Your task to perform on an android device: Search for "lenovo thinkpad" on walmart.com, select the first entry, add it to the cart, then select checkout. Image 0: 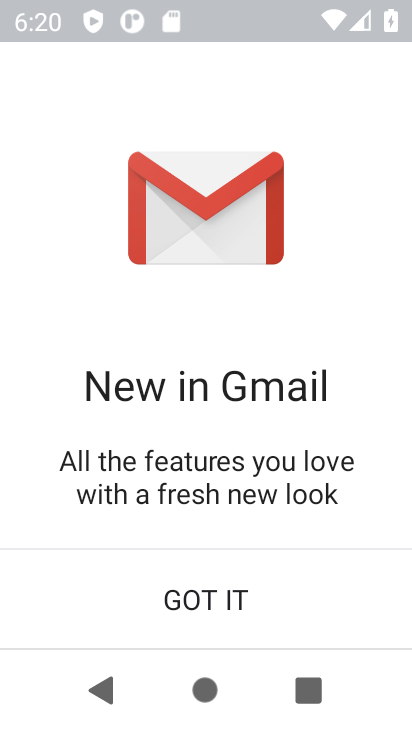
Step 0: press home button
Your task to perform on an android device: Search for "lenovo thinkpad" on walmart.com, select the first entry, add it to the cart, then select checkout. Image 1: 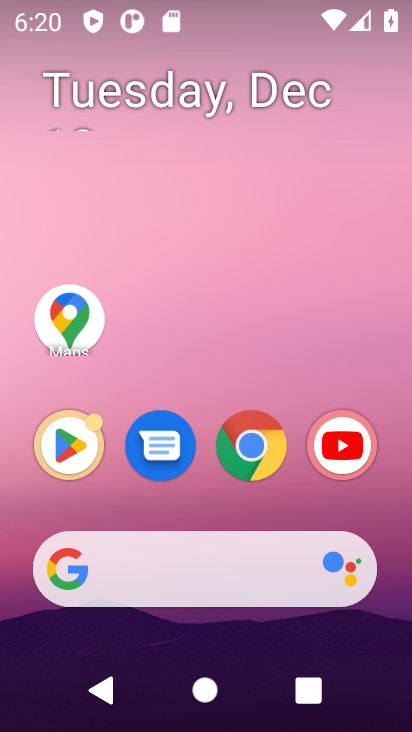
Step 1: click (188, 570)
Your task to perform on an android device: Search for "lenovo thinkpad" on walmart.com, select the first entry, add it to the cart, then select checkout. Image 2: 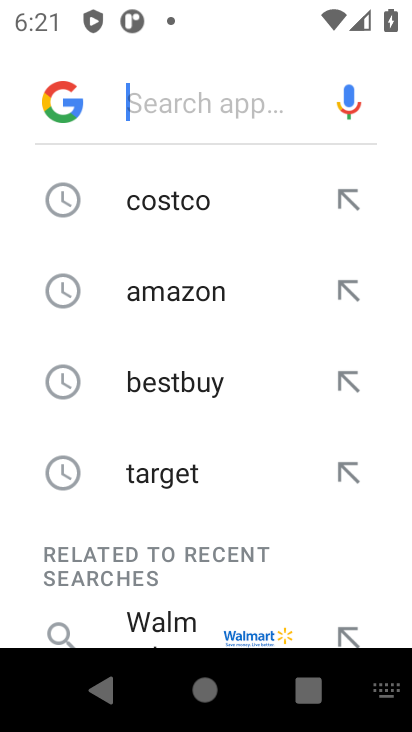
Step 2: type "walmart.com,"
Your task to perform on an android device: Search for "lenovo thinkpad" on walmart.com, select the first entry, add it to the cart, then select checkout. Image 3: 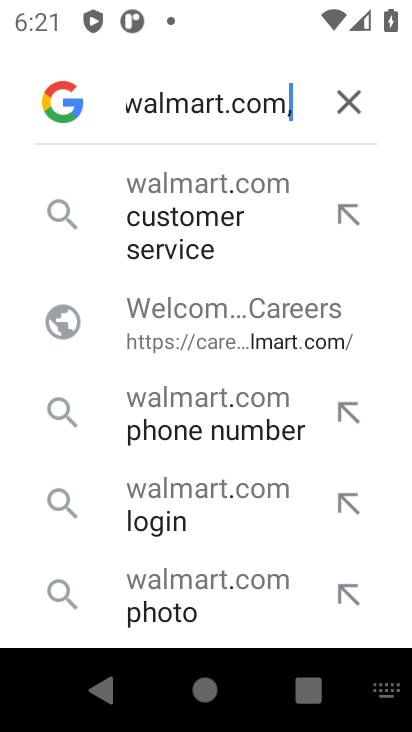
Step 3: click (190, 180)
Your task to perform on an android device: Search for "lenovo thinkpad" on walmart.com, select the first entry, add it to the cart, then select checkout. Image 4: 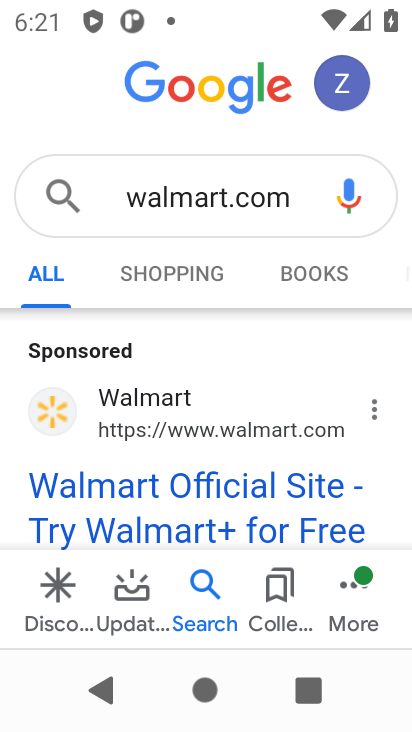
Step 4: click (162, 421)
Your task to perform on an android device: Search for "lenovo thinkpad" on walmart.com, select the first entry, add it to the cart, then select checkout. Image 5: 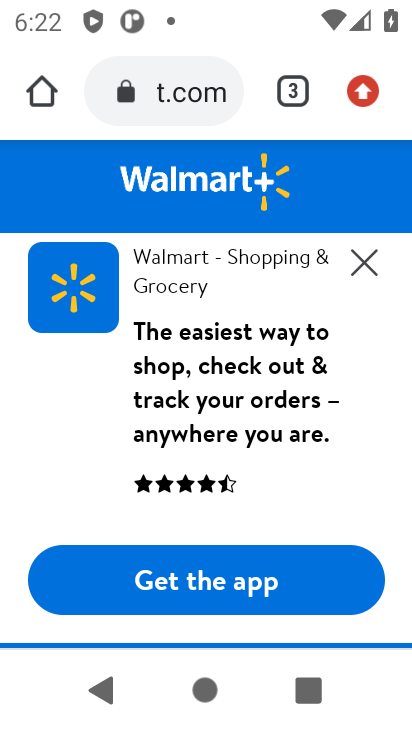
Step 5: click (368, 262)
Your task to perform on an android device: Search for "lenovo thinkpad" on walmart.com, select the first entry, add it to the cart, then select checkout. Image 6: 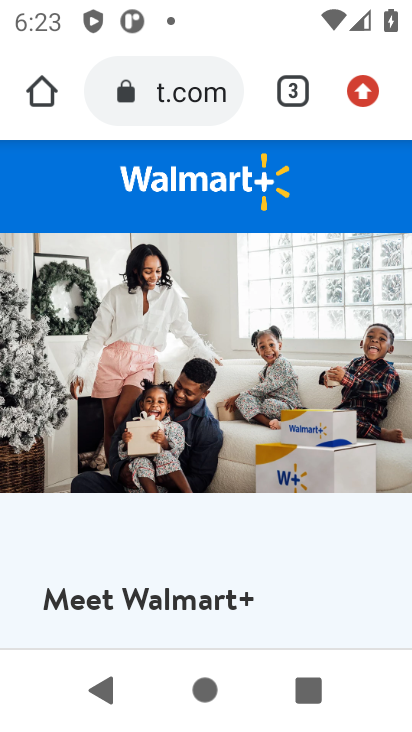
Step 6: drag from (194, 488) to (216, 172)
Your task to perform on an android device: Search for "lenovo thinkpad" on walmart.com, select the first entry, add it to the cart, then select checkout. Image 7: 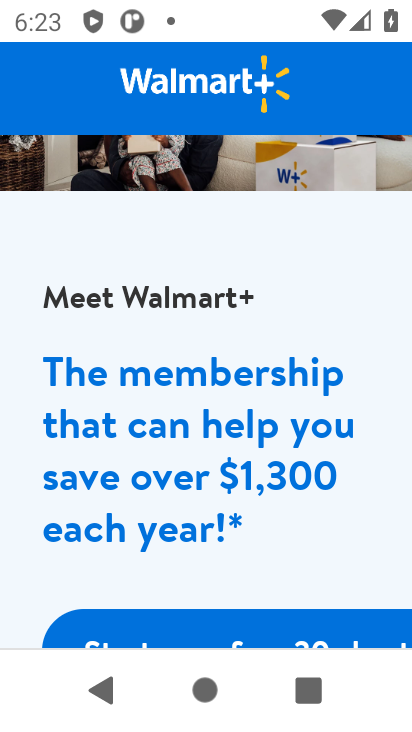
Step 7: drag from (222, 461) to (222, 209)
Your task to perform on an android device: Search for "lenovo thinkpad" on walmart.com, select the first entry, add it to the cart, then select checkout. Image 8: 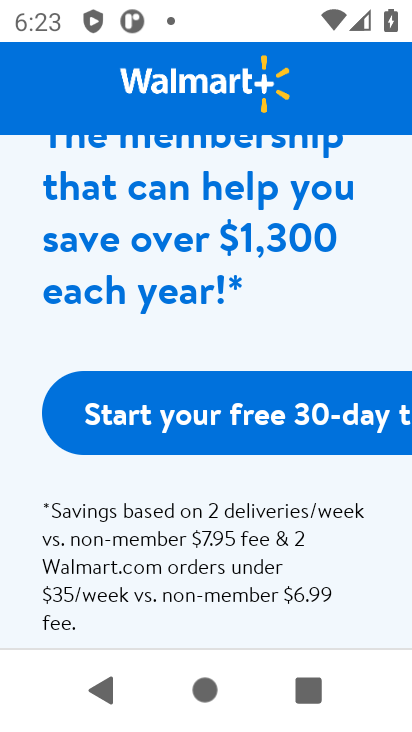
Step 8: drag from (198, 507) to (194, 355)
Your task to perform on an android device: Search for "lenovo thinkpad" on walmart.com, select the first entry, add it to the cart, then select checkout. Image 9: 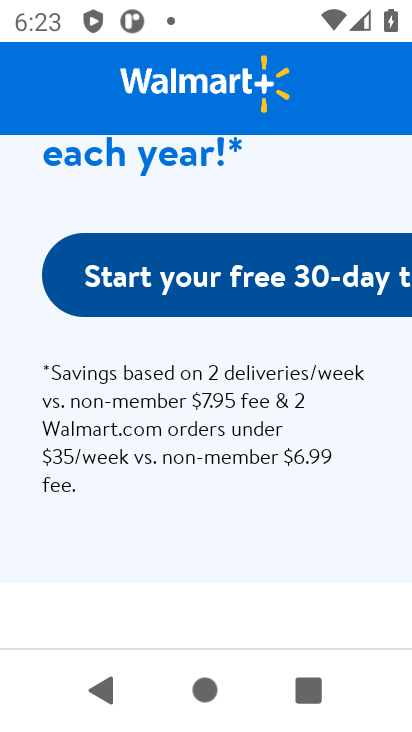
Step 9: drag from (239, 212) to (247, 576)
Your task to perform on an android device: Search for "lenovo thinkpad" on walmart.com, select the first entry, add it to the cart, then select checkout. Image 10: 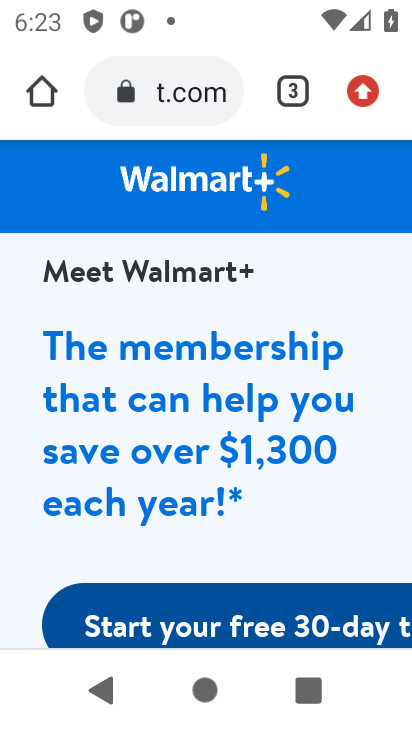
Step 10: drag from (274, 372) to (268, 509)
Your task to perform on an android device: Search for "lenovo thinkpad" on walmart.com, select the first entry, add it to the cart, then select checkout. Image 11: 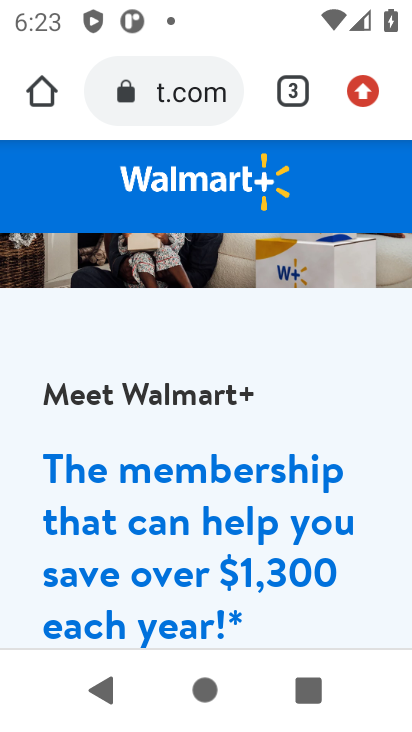
Step 11: drag from (301, 270) to (297, 489)
Your task to perform on an android device: Search for "lenovo thinkpad" on walmart.com, select the first entry, add it to the cart, then select checkout. Image 12: 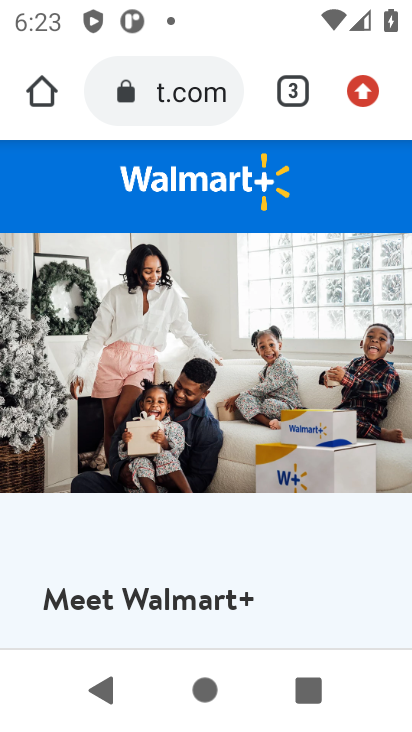
Step 12: drag from (251, 440) to (245, 546)
Your task to perform on an android device: Search for "lenovo thinkpad" on walmart.com, select the first entry, add it to the cart, then select checkout. Image 13: 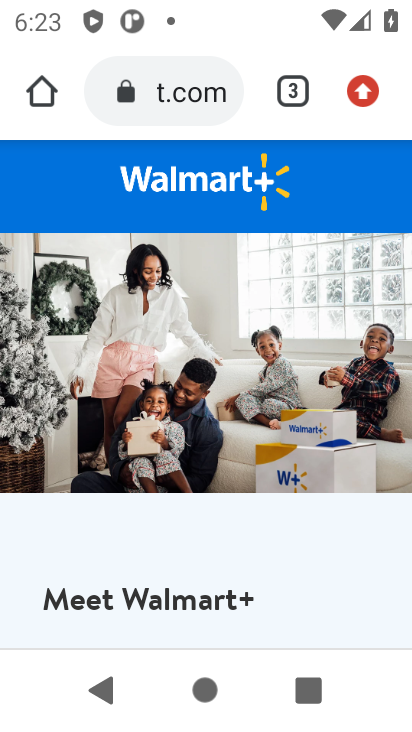
Step 13: click (268, 174)
Your task to perform on an android device: Search for "lenovo thinkpad" on walmart.com, select the first entry, add it to the cart, then select checkout. Image 14: 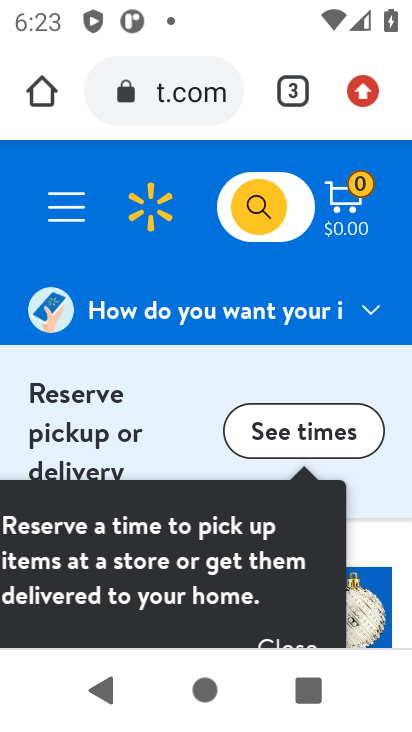
Step 14: click (357, 511)
Your task to perform on an android device: Search for "lenovo thinkpad" on walmart.com, select the first entry, add it to the cart, then select checkout. Image 15: 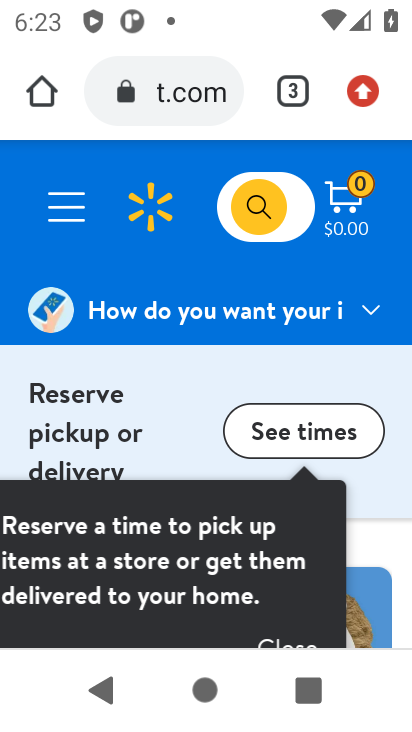
Step 15: click (248, 206)
Your task to perform on an android device: Search for "lenovo thinkpad" on walmart.com, select the first entry, add it to the cart, then select checkout. Image 16: 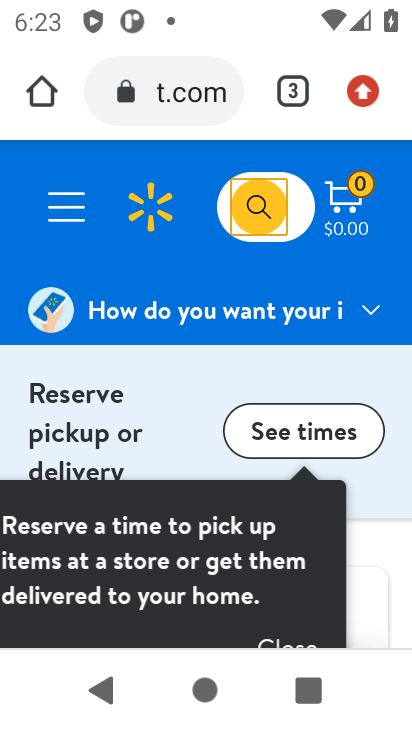
Step 16: click (256, 206)
Your task to perform on an android device: Search for "lenovo thinkpad" on walmart.com, select the first entry, add it to the cart, then select checkout. Image 17: 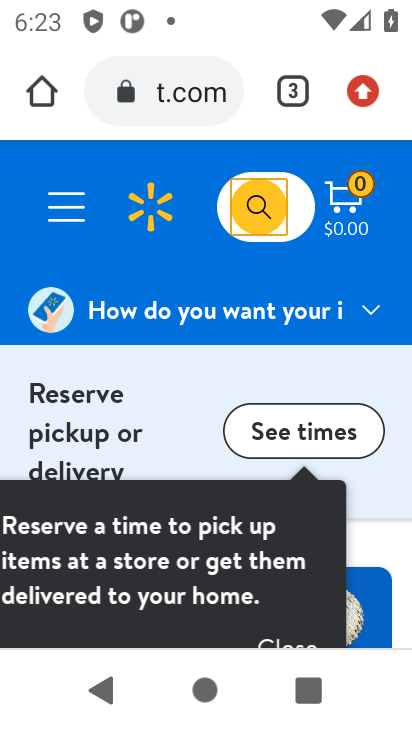
Step 17: click (253, 202)
Your task to perform on an android device: Search for "lenovo thinkpad" on walmart.com, select the first entry, add it to the cart, then select checkout. Image 18: 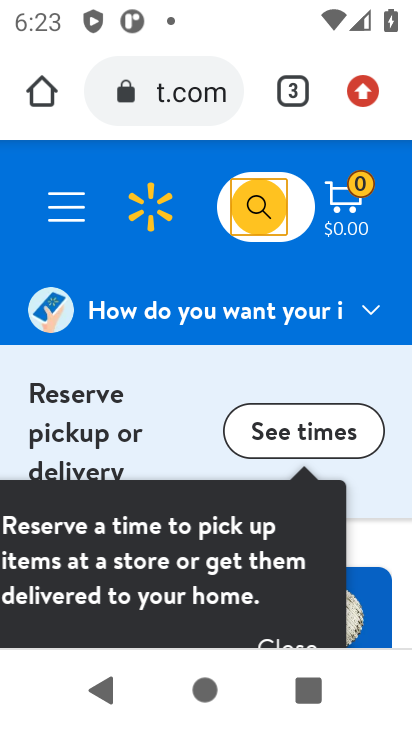
Step 18: click (255, 210)
Your task to perform on an android device: Search for "lenovo thinkpad" on walmart.com, select the first entry, add it to the cart, then select checkout. Image 19: 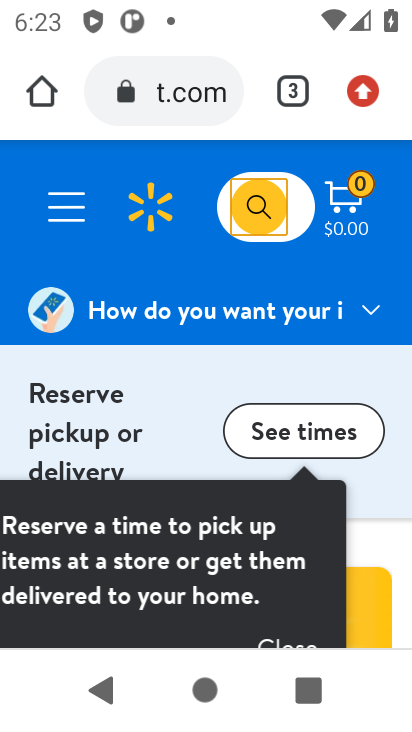
Step 19: click (271, 207)
Your task to perform on an android device: Search for "lenovo thinkpad" on walmart.com, select the first entry, add it to the cart, then select checkout. Image 20: 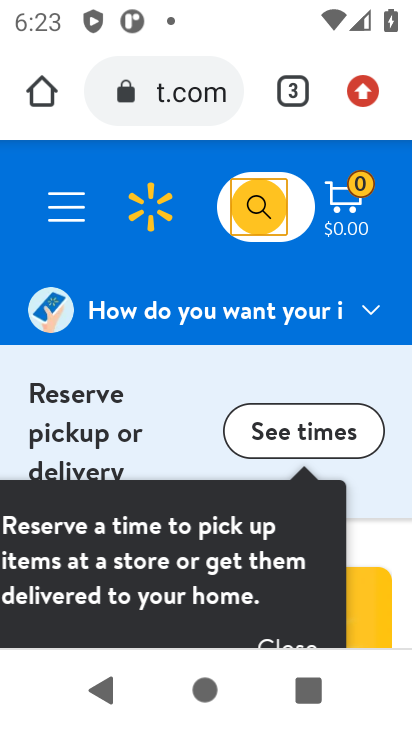
Step 20: click (251, 200)
Your task to perform on an android device: Search for "lenovo thinkpad" on walmart.com, select the first entry, add it to the cart, then select checkout. Image 21: 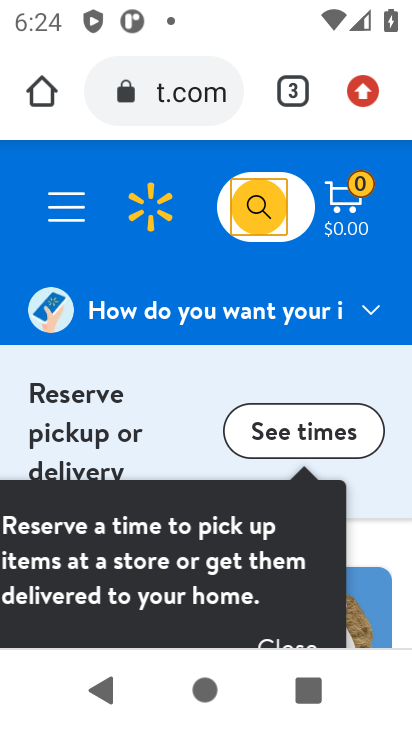
Step 21: click (253, 205)
Your task to perform on an android device: Search for "lenovo thinkpad" on walmart.com, select the first entry, add it to the cart, then select checkout. Image 22: 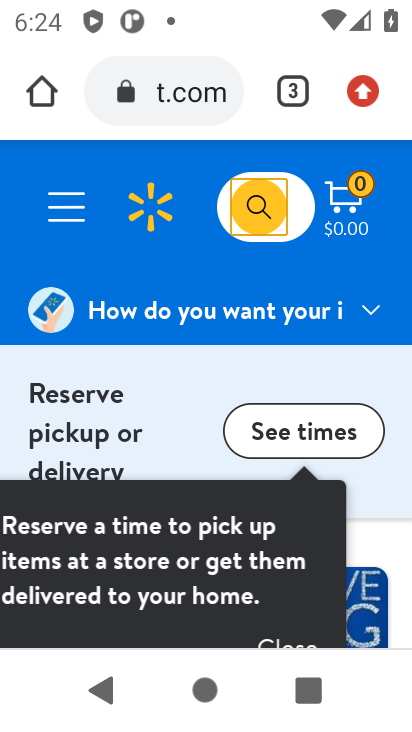
Step 22: click (260, 196)
Your task to perform on an android device: Search for "lenovo thinkpad" on walmart.com, select the first entry, add it to the cart, then select checkout. Image 23: 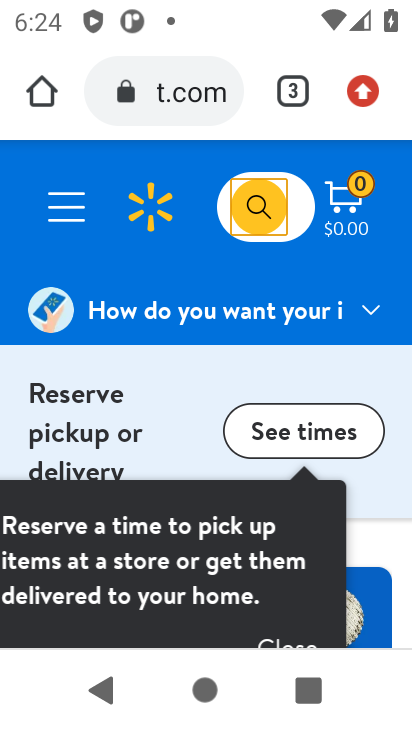
Step 23: task complete